Your task to perform on an android device: turn off location history Image 0: 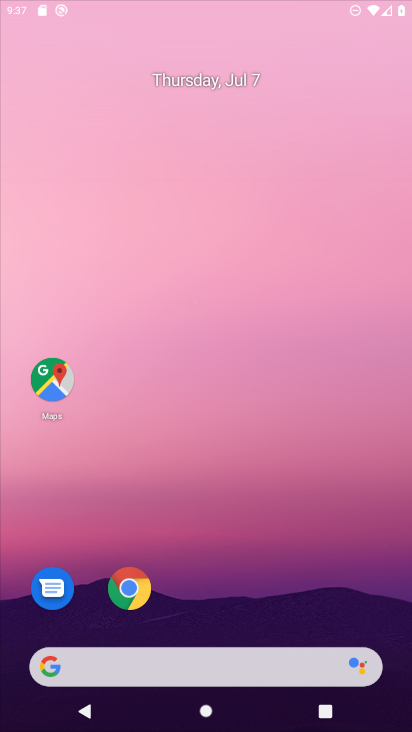
Step 0: click (269, 561)
Your task to perform on an android device: turn off location history Image 1: 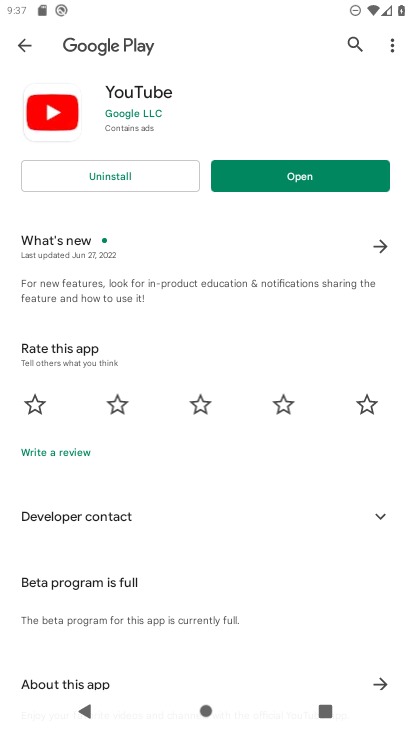
Step 1: drag from (247, 7) to (242, 606)
Your task to perform on an android device: turn off location history Image 2: 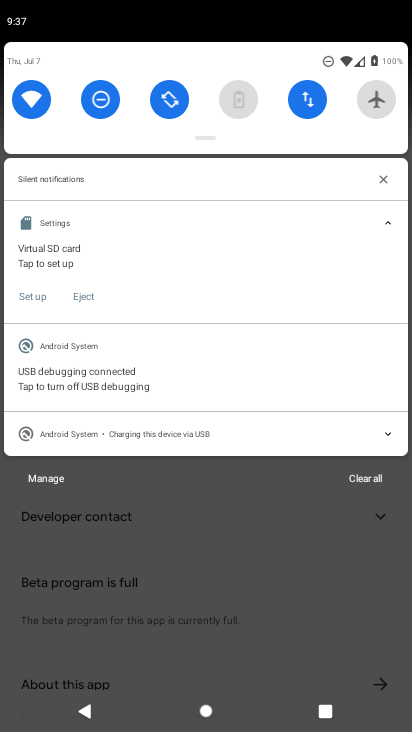
Step 2: drag from (202, 63) to (175, 649)
Your task to perform on an android device: turn off location history Image 3: 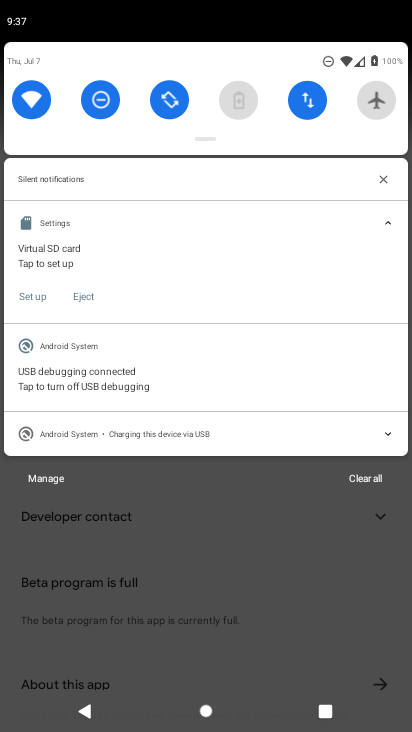
Step 3: click (175, 649)
Your task to perform on an android device: turn off location history Image 4: 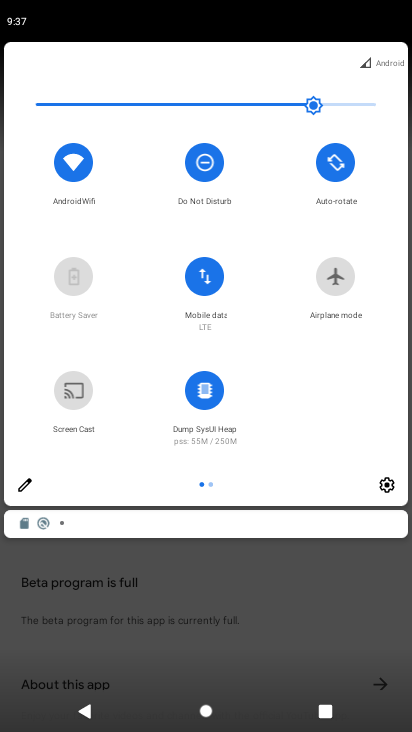
Step 4: click (385, 488)
Your task to perform on an android device: turn off location history Image 5: 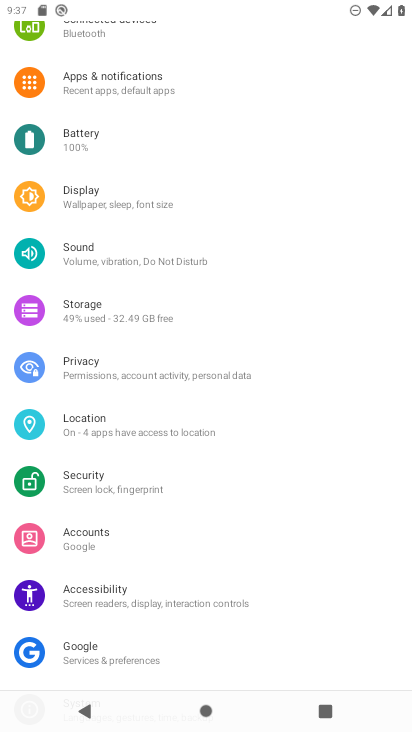
Step 5: click (115, 422)
Your task to perform on an android device: turn off location history Image 6: 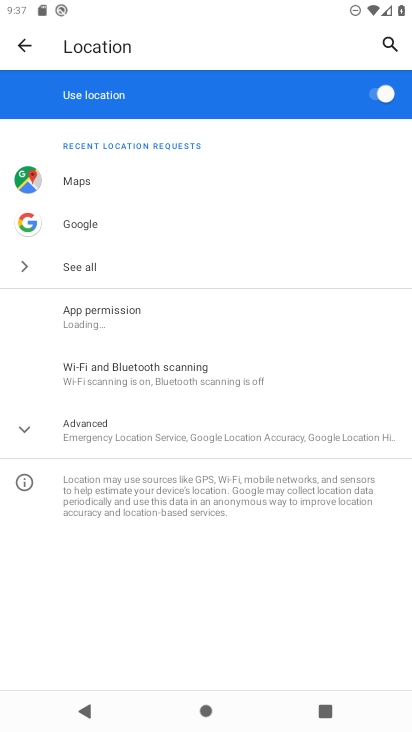
Step 6: click (115, 422)
Your task to perform on an android device: turn off location history Image 7: 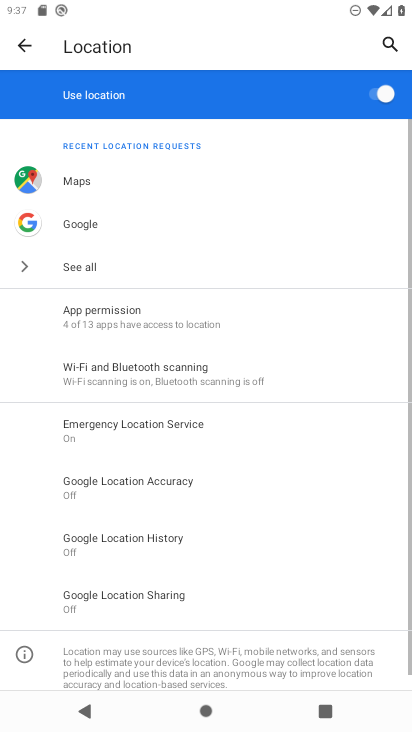
Step 7: click (120, 557)
Your task to perform on an android device: turn off location history Image 8: 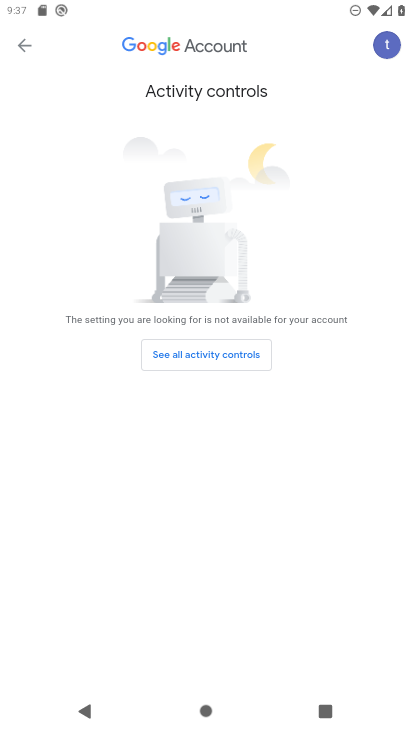
Step 8: task complete